Your task to perform on an android device: Open battery settings Image 0: 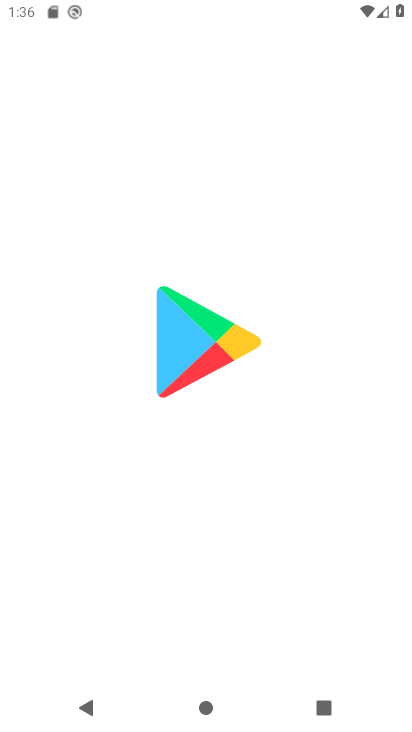
Step 0: press home button
Your task to perform on an android device: Open battery settings Image 1: 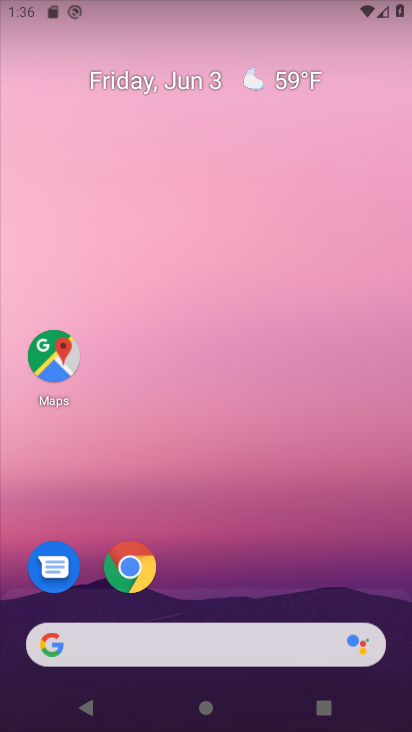
Step 1: drag from (59, 659) to (196, 83)
Your task to perform on an android device: Open battery settings Image 2: 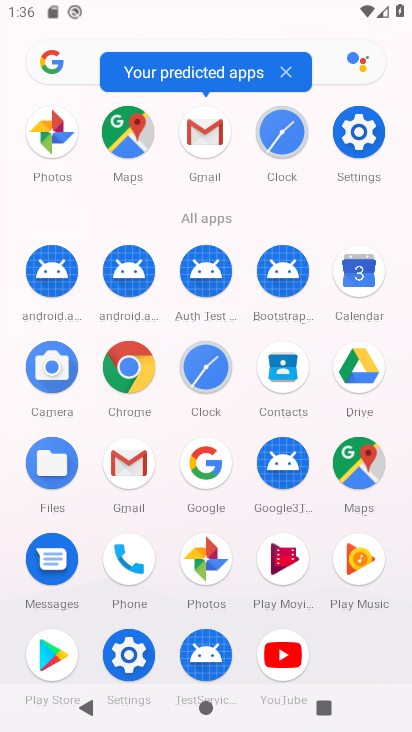
Step 2: click (137, 670)
Your task to perform on an android device: Open battery settings Image 3: 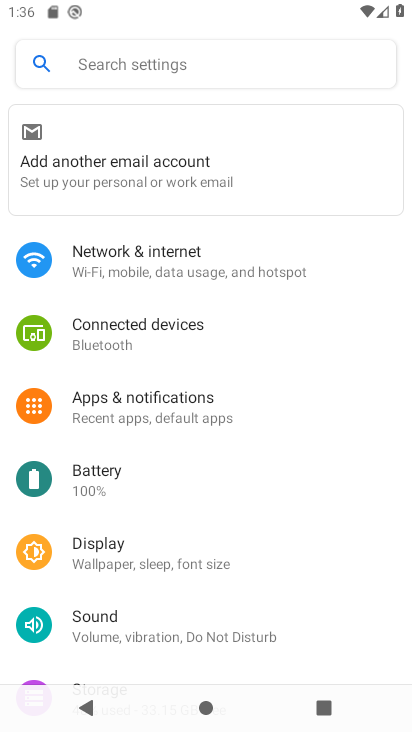
Step 3: click (132, 484)
Your task to perform on an android device: Open battery settings Image 4: 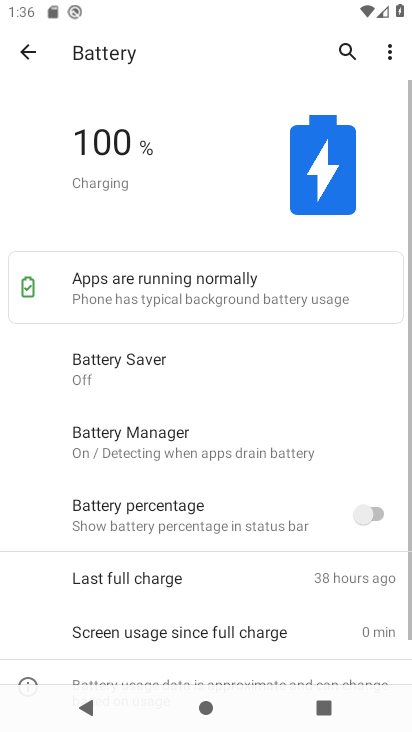
Step 4: task complete